Your task to perform on an android device: change timer sound Image 0: 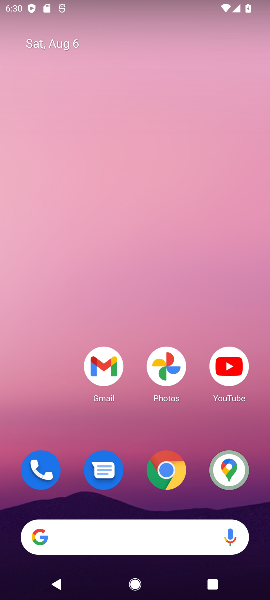
Step 0: press home button
Your task to perform on an android device: change timer sound Image 1: 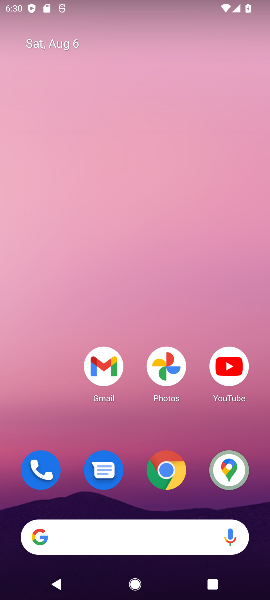
Step 1: drag from (108, 485) to (129, 117)
Your task to perform on an android device: change timer sound Image 2: 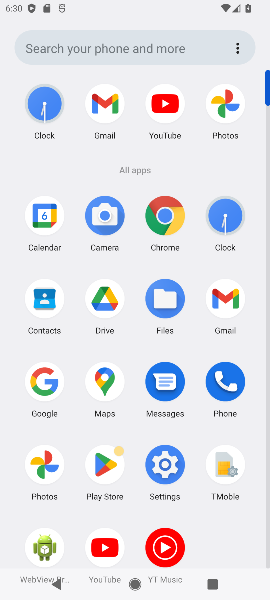
Step 2: click (231, 205)
Your task to perform on an android device: change timer sound Image 3: 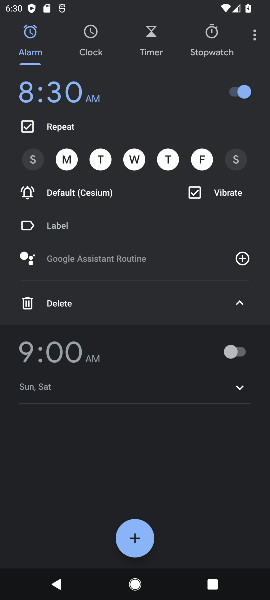
Step 3: click (249, 37)
Your task to perform on an android device: change timer sound Image 4: 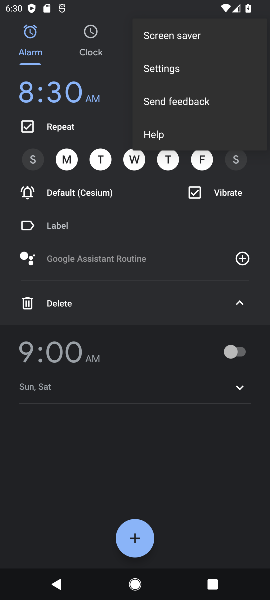
Step 4: click (162, 68)
Your task to perform on an android device: change timer sound Image 5: 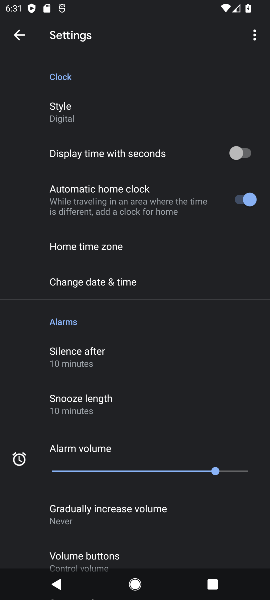
Step 5: drag from (149, 484) to (141, 316)
Your task to perform on an android device: change timer sound Image 6: 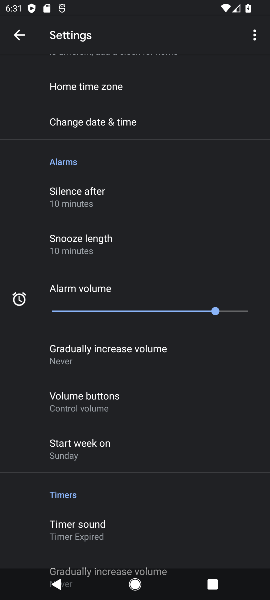
Step 6: click (110, 522)
Your task to perform on an android device: change timer sound Image 7: 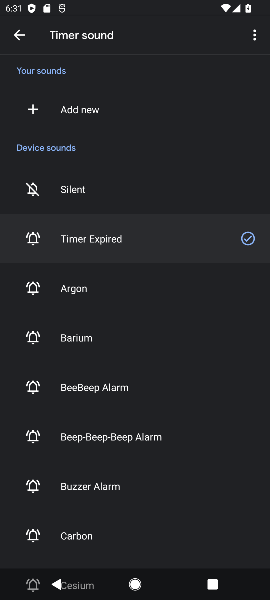
Step 7: click (76, 333)
Your task to perform on an android device: change timer sound Image 8: 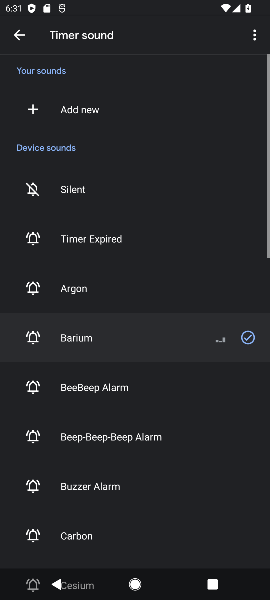
Step 8: task complete